Your task to perform on an android device: open a bookmark in the chrome app Image 0: 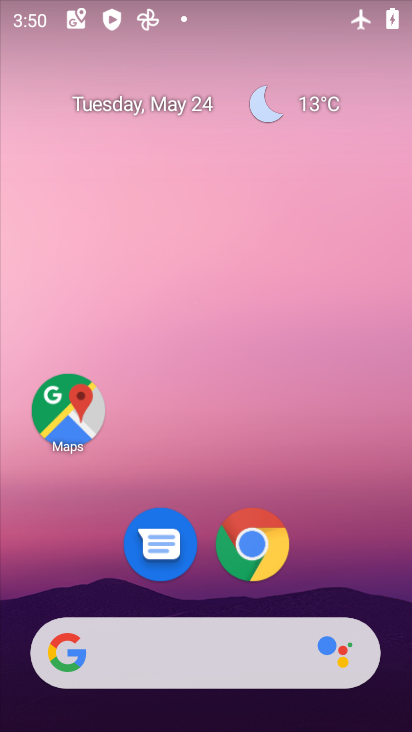
Step 0: click (270, 569)
Your task to perform on an android device: open a bookmark in the chrome app Image 1: 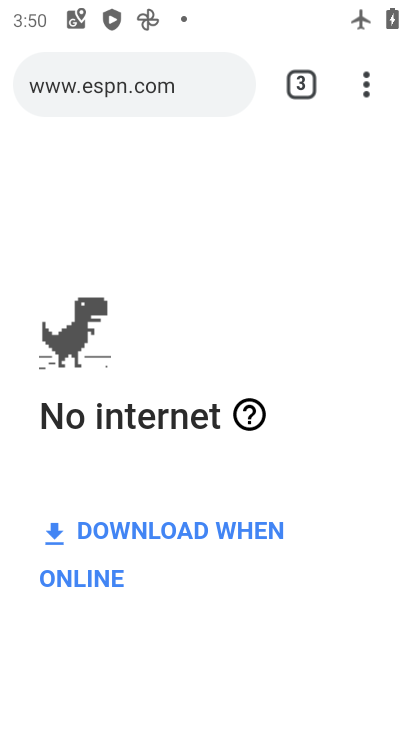
Step 1: task complete